Your task to perform on an android device: make emails show in primary in the gmail app Image 0: 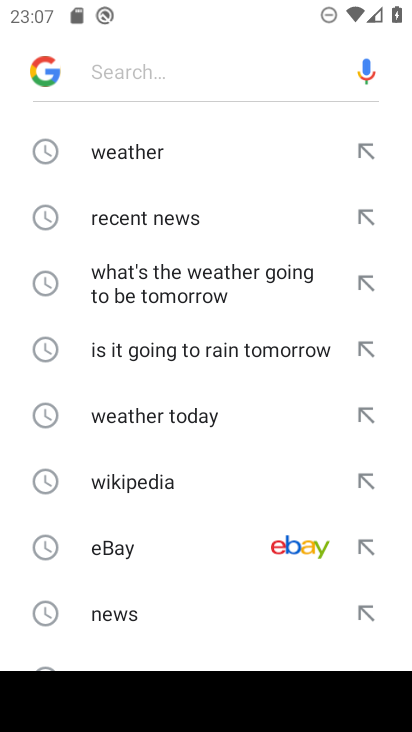
Step 0: press home button
Your task to perform on an android device: make emails show in primary in the gmail app Image 1: 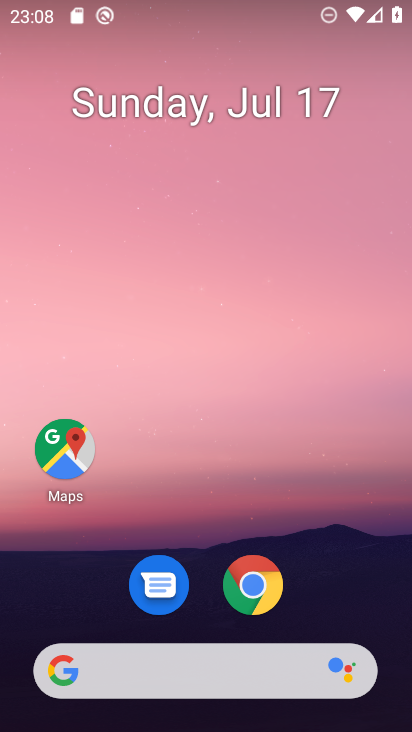
Step 1: drag from (189, 676) to (309, 110)
Your task to perform on an android device: make emails show in primary in the gmail app Image 2: 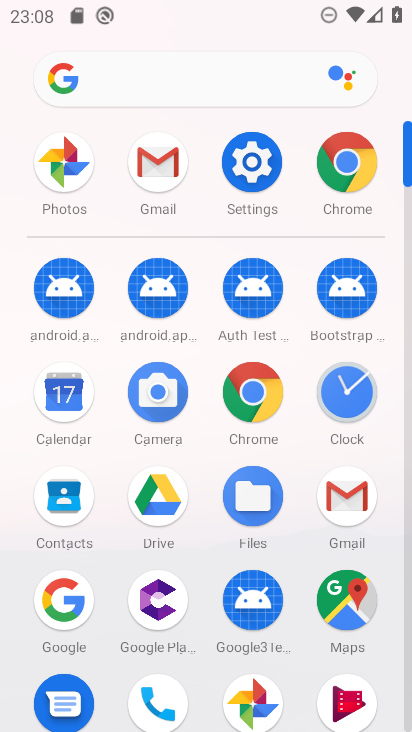
Step 2: click (155, 178)
Your task to perform on an android device: make emails show in primary in the gmail app Image 3: 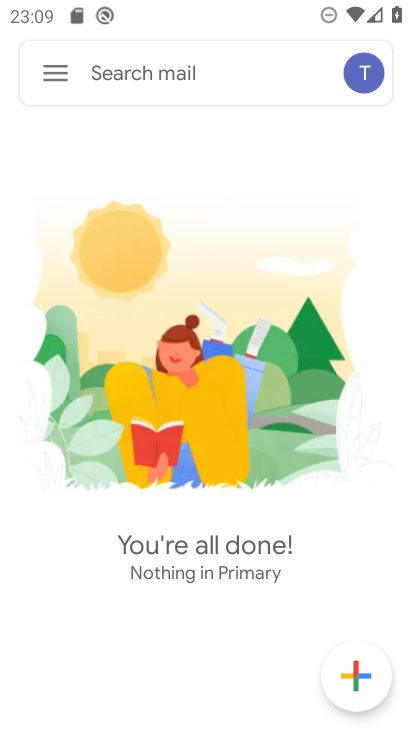
Step 3: click (56, 72)
Your task to perform on an android device: make emails show in primary in the gmail app Image 4: 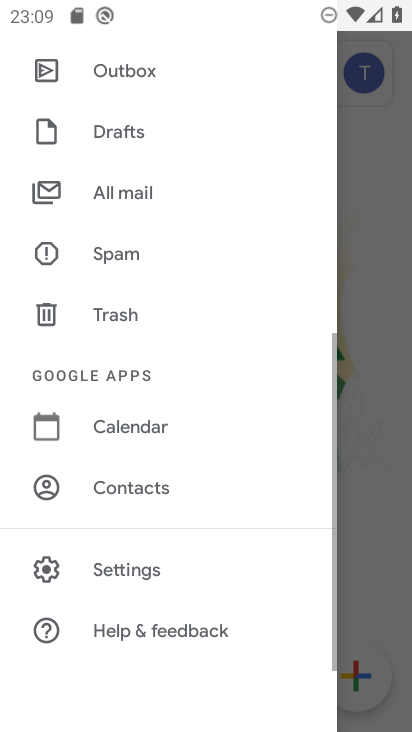
Step 4: click (126, 568)
Your task to perform on an android device: make emails show in primary in the gmail app Image 5: 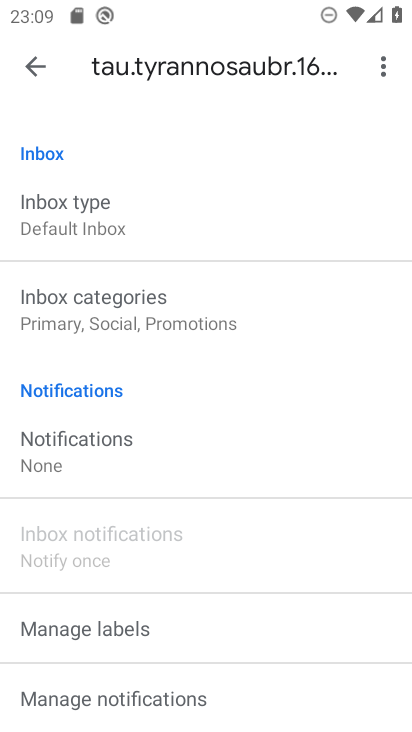
Step 5: click (121, 302)
Your task to perform on an android device: make emails show in primary in the gmail app Image 6: 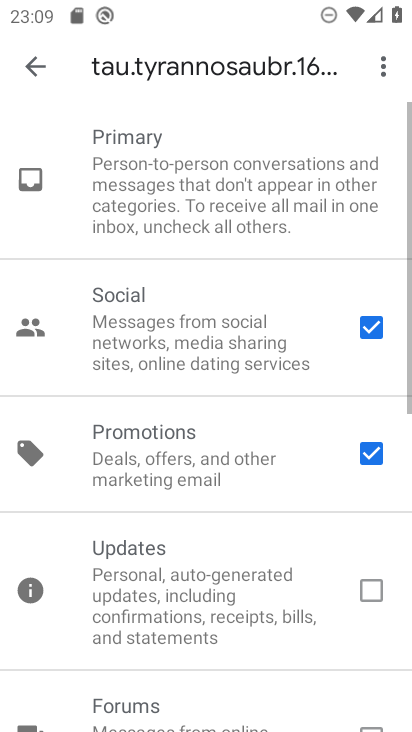
Step 6: click (366, 325)
Your task to perform on an android device: make emails show in primary in the gmail app Image 7: 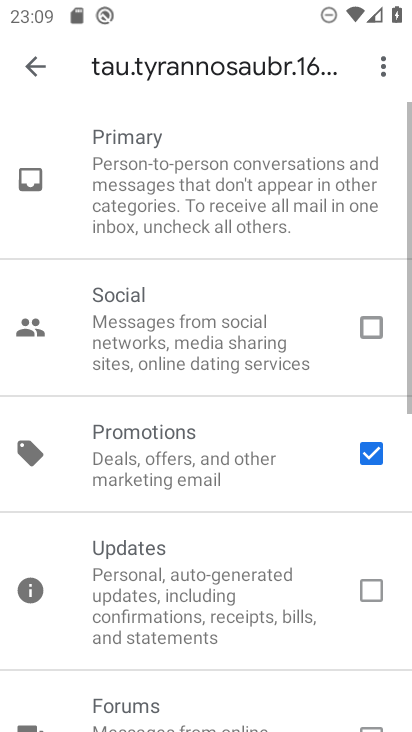
Step 7: click (365, 447)
Your task to perform on an android device: make emails show in primary in the gmail app Image 8: 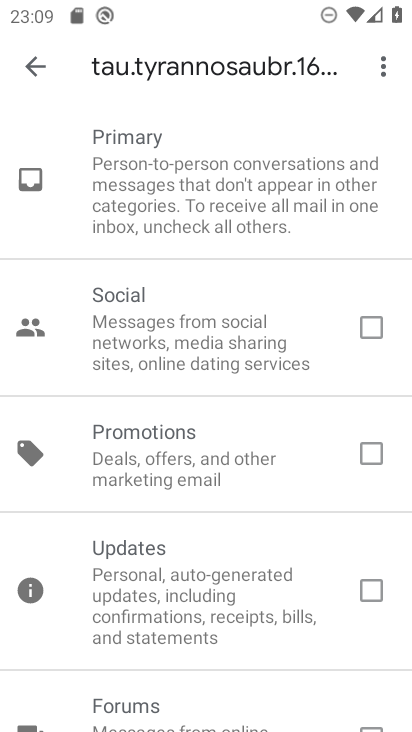
Step 8: click (32, 57)
Your task to perform on an android device: make emails show in primary in the gmail app Image 9: 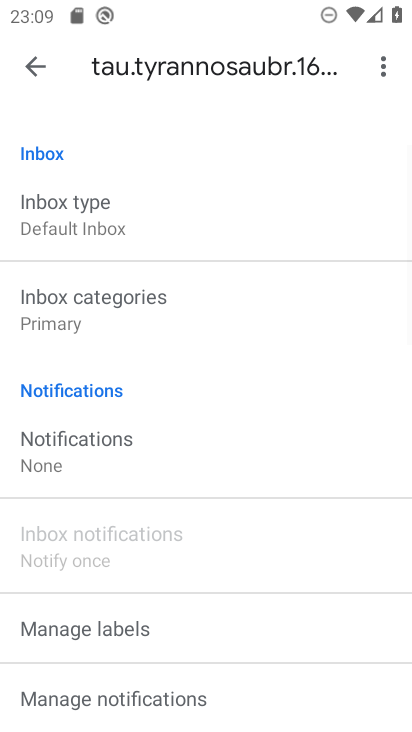
Step 9: task complete